Your task to perform on an android device: delete location history Image 0: 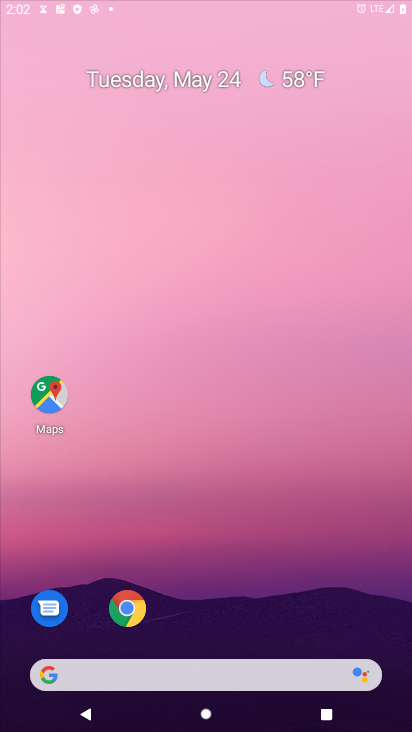
Step 0: press home button
Your task to perform on an android device: delete location history Image 1: 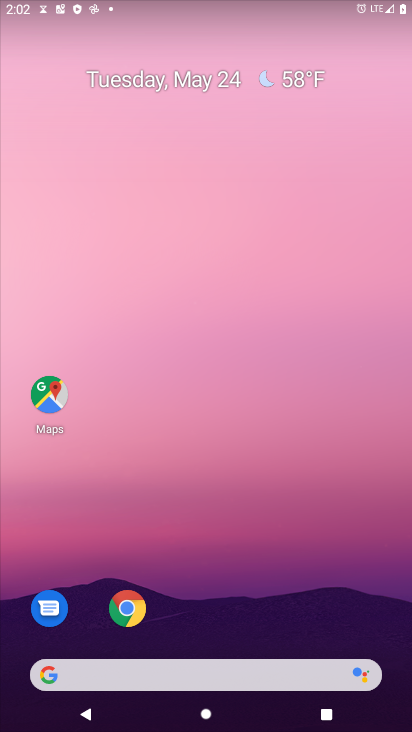
Step 1: drag from (260, 691) to (208, 249)
Your task to perform on an android device: delete location history Image 2: 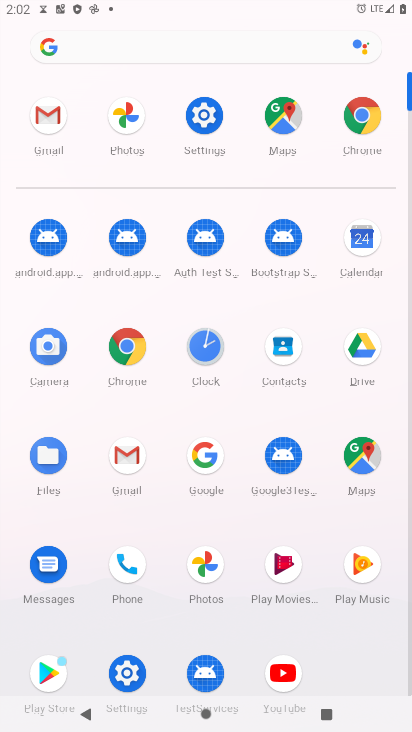
Step 2: click (204, 120)
Your task to perform on an android device: delete location history Image 3: 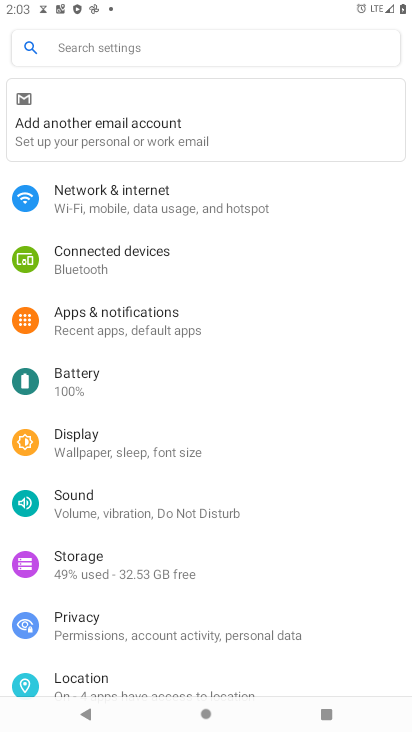
Step 3: click (111, 40)
Your task to perform on an android device: delete location history Image 4: 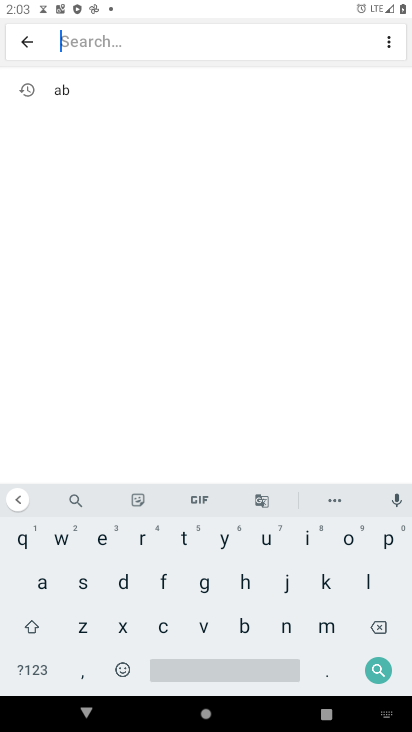
Step 4: click (372, 578)
Your task to perform on an android device: delete location history Image 5: 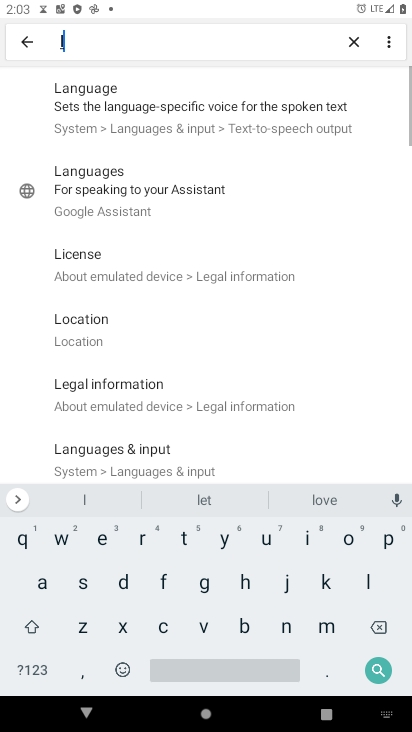
Step 5: click (351, 543)
Your task to perform on an android device: delete location history Image 6: 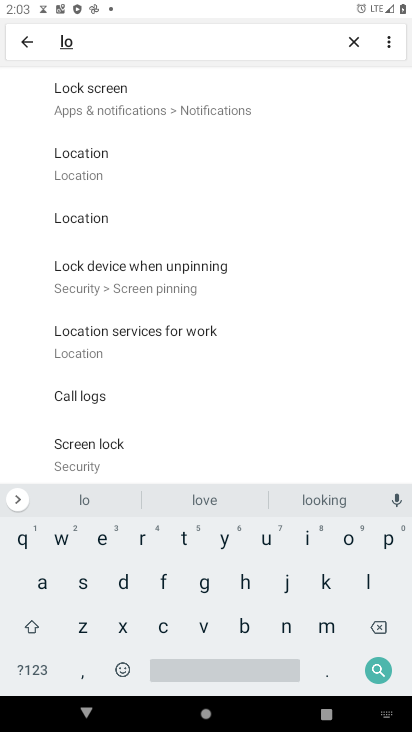
Step 6: click (124, 179)
Your task to perform on an android device: delete location history Image 7: 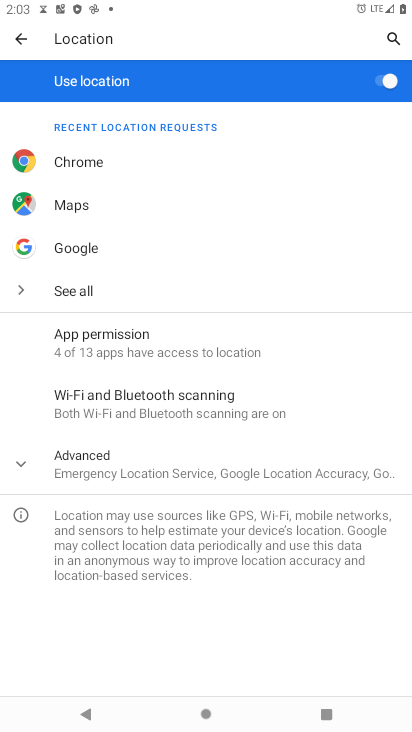
Step 7: click (26, 474)
Your task to perform on an android device: delete location history Image 8: 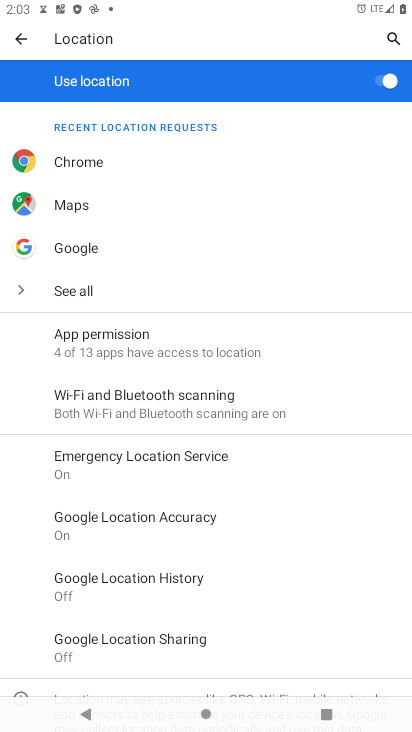
Step 8: click (115, 576)
Your task to perform on an android device: delete location history Image 9: 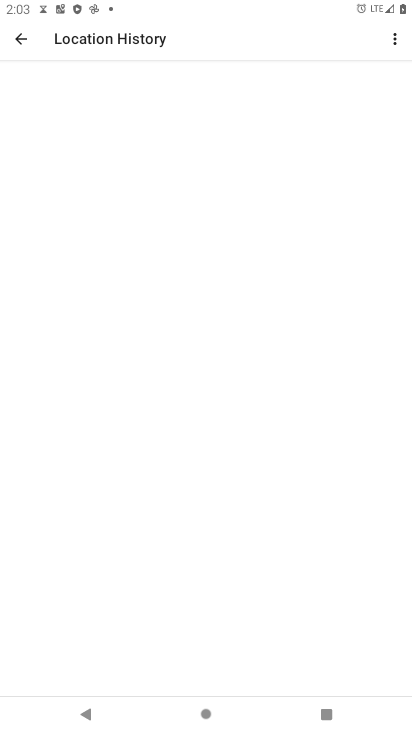
Step 9: task complete